Your task to perform on an android device: change the clock display to show seconds Image 0: 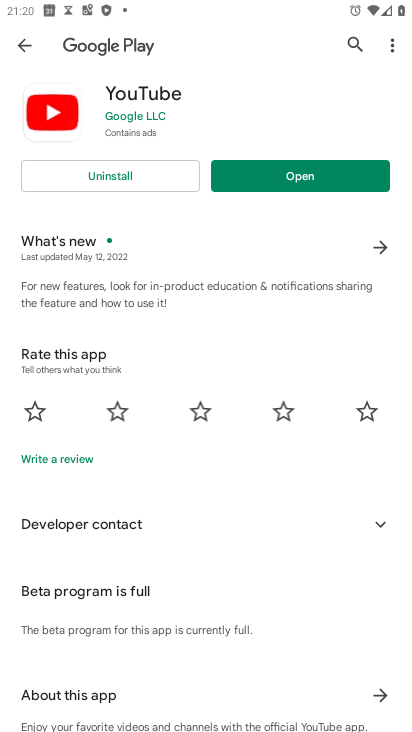
Step 0: press home button
Your task to perform on an android device: change the clock display to show seconds Image 1: 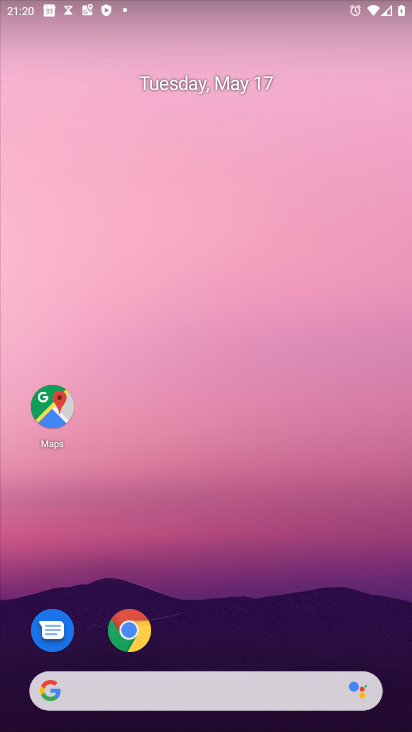
Step 1: drag from (194, 612) to (232, 98)
Your task to perform on an android device: change the clock display to show seconds Image 2: 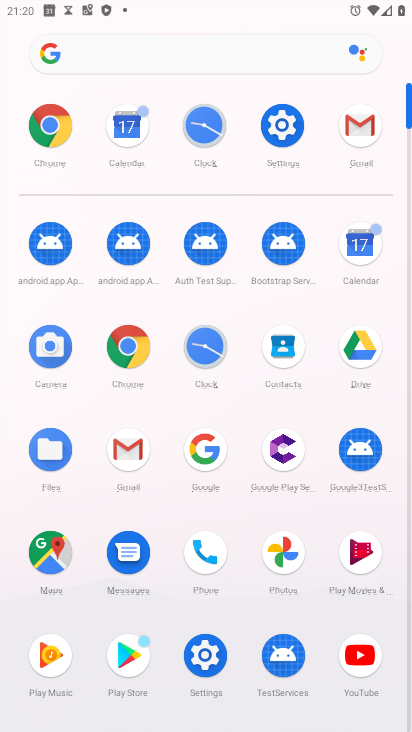
Step 2: click (200, 329)
Your task to perform on an android device: change the clock display to show seconds Image 3: 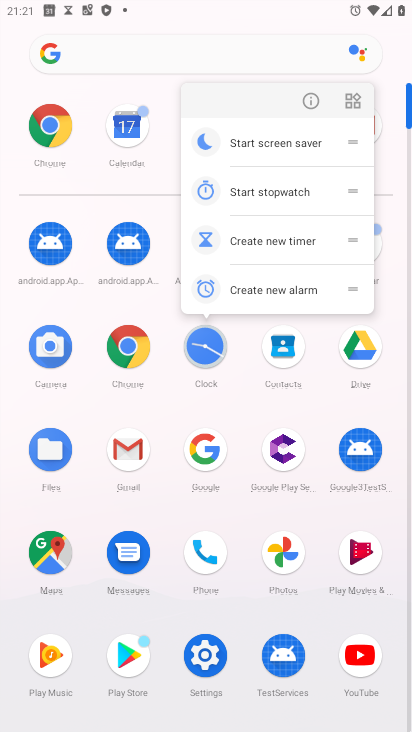
Step 3: click (199, 352)
Your task to perform on an android device: change the clock display to show seconds Image 4: 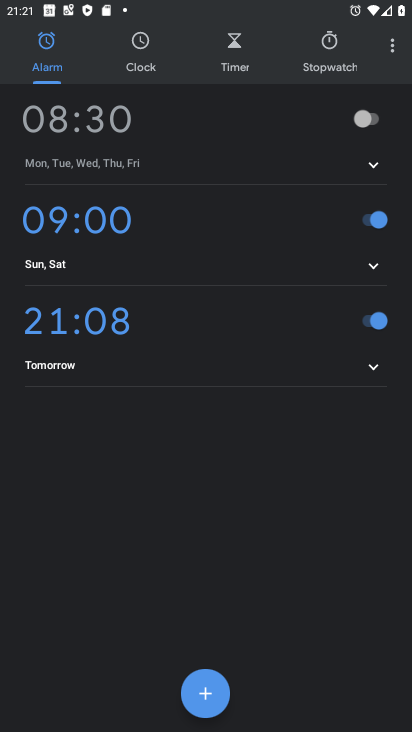
Step 4: click (390, 52)
Your task to perform on an android device: change the clock display to show seconds Image 5: 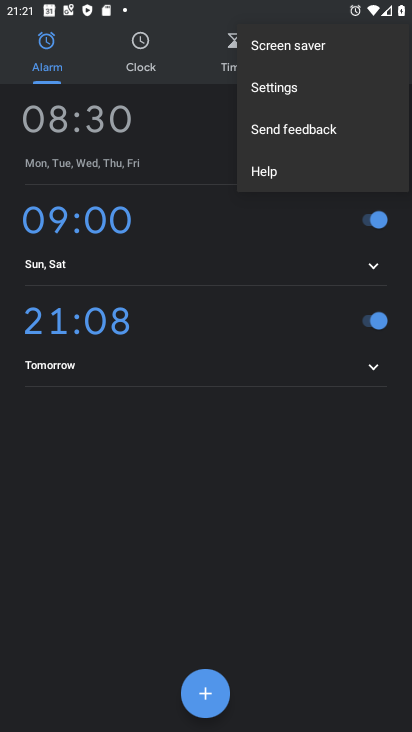
Step 5: click (288, 93)
Your task to perform on an android device: change the clock display to show seconds Image 6: 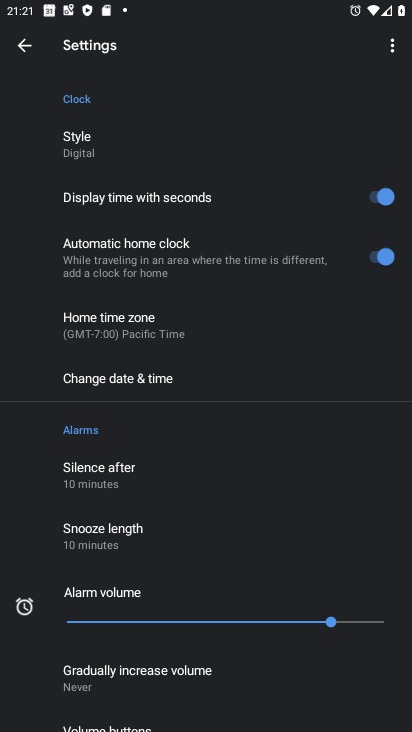
Step 6: task complete